Your task to perform on an android device: Open Yahoo.com Image 0: 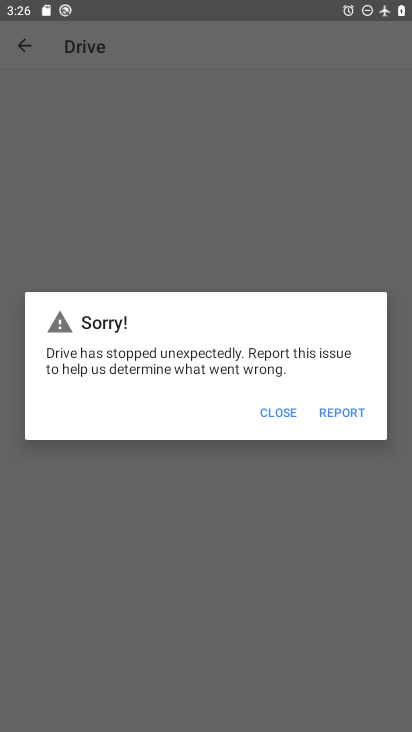
Step 0: drag from (215, 640) to (230, 244)
Your task to perform on an android device: Open Yahoo.com Image 1: 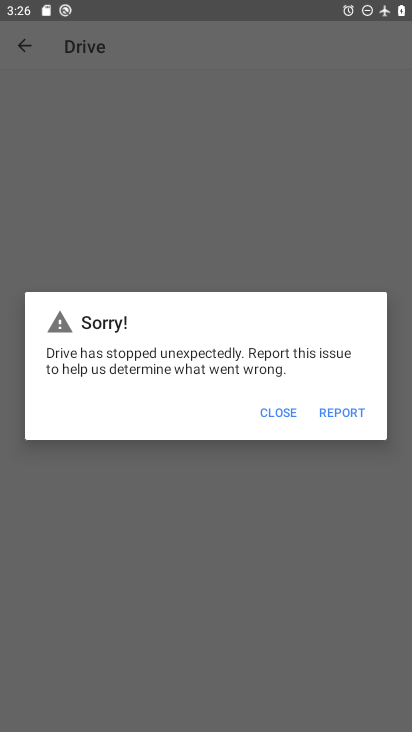
Step 1: press home button
Your task to perform on an android device: Open Yahoo.com Image 2: 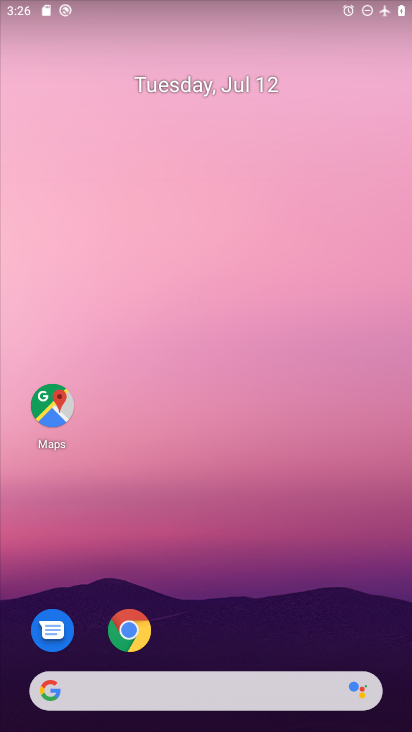
Step 2: click (141, 612)
Your task to perform on an android device: Open Yahoo.com Image 3: 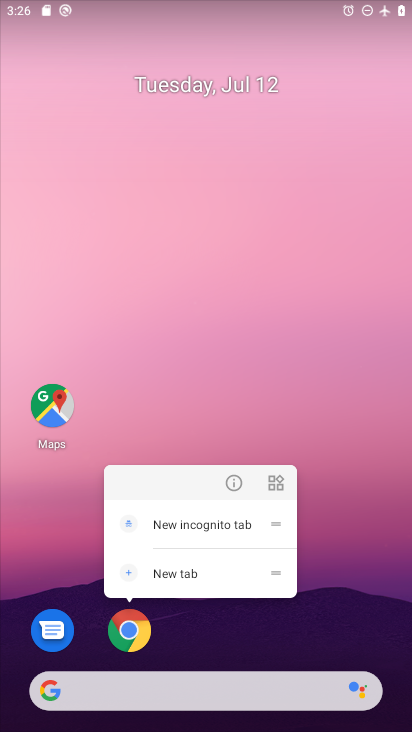
Step 3: click (127, 629)
Your task to perform on an android device: Open Yahoo.com Image 4: 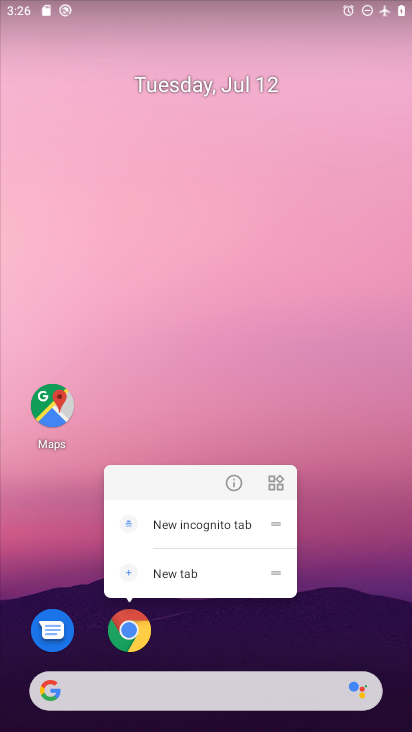
Step 4: click (126, 628)
Your task to perform on an android device: Open Yahoo.com Image 5: 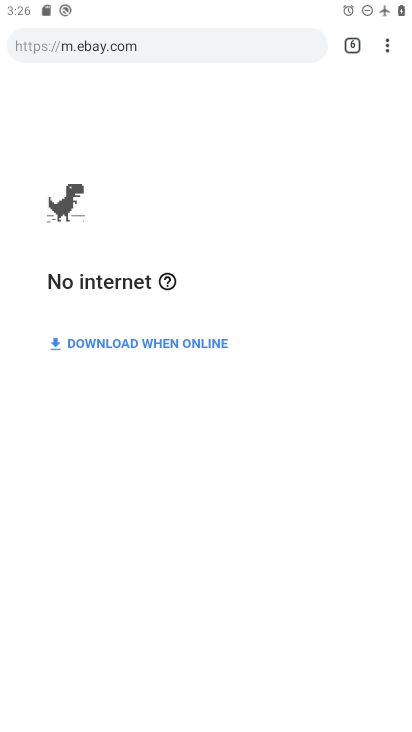
Step 5: click (350, 43)
Your task to perform on an android device: Open Yahoo.com Image 6: 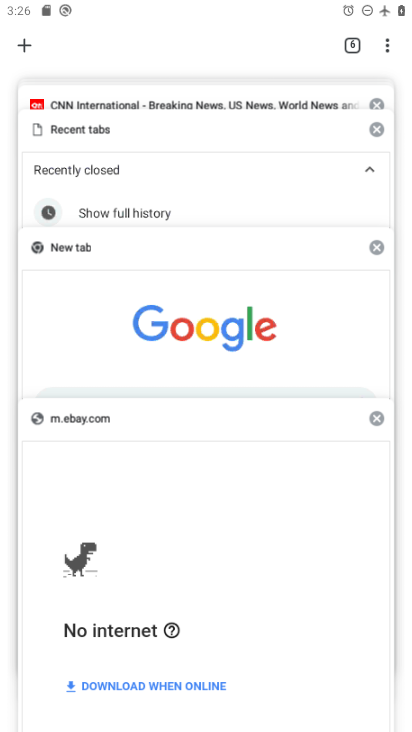
Step 6: click (21, 46)
Your task to perform on an android device: Open Yahoo.com Image 7: 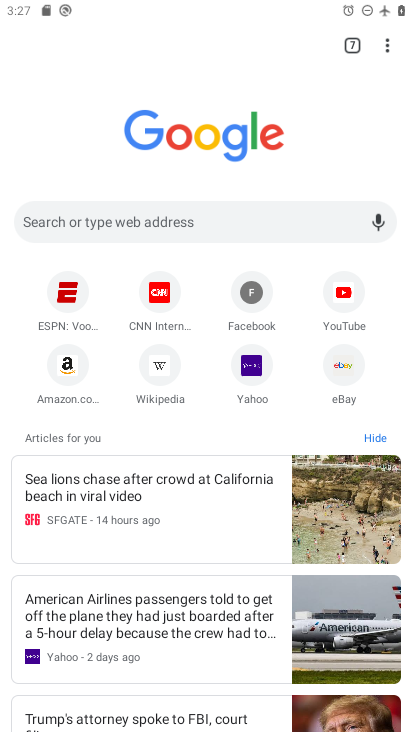
Step 7: click (379, 44)
Your task to perform on an android device: Open Yahoo.com Image 8: 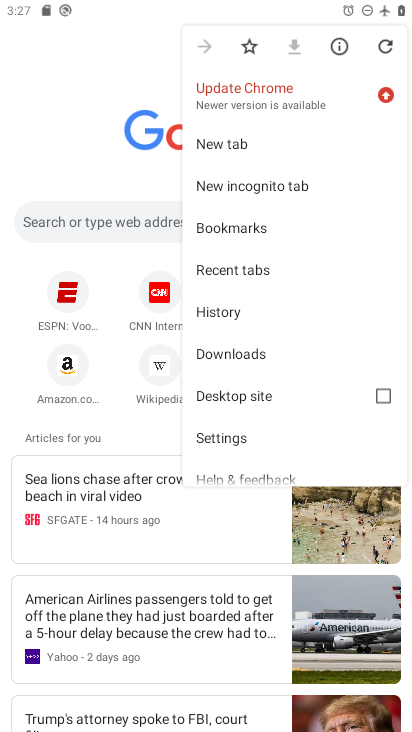
Step 8: click (38, 163)
Your task to perform on an android device: Open Yahoo.com Image 9: 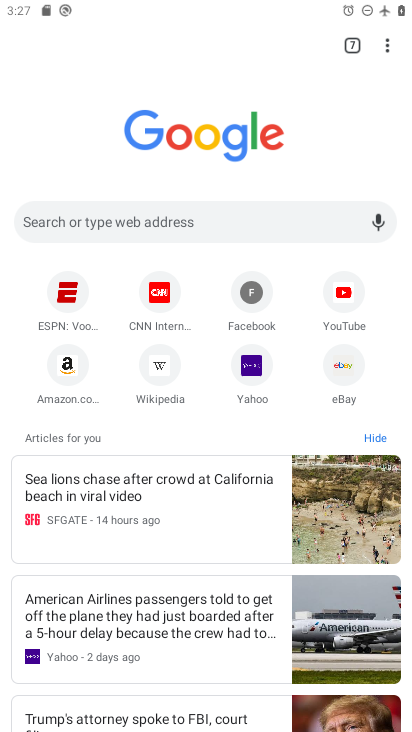
Step 9: click (245, 364)
Your task to perform on an android device: Open Yahoo.com Image 10: 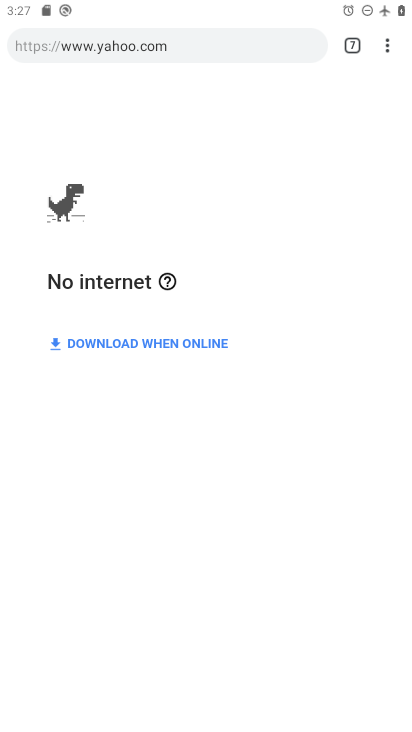
Step 10: task complete